Your task to perform on an android device: allow notifications from all sites in the chrome app Image 0: 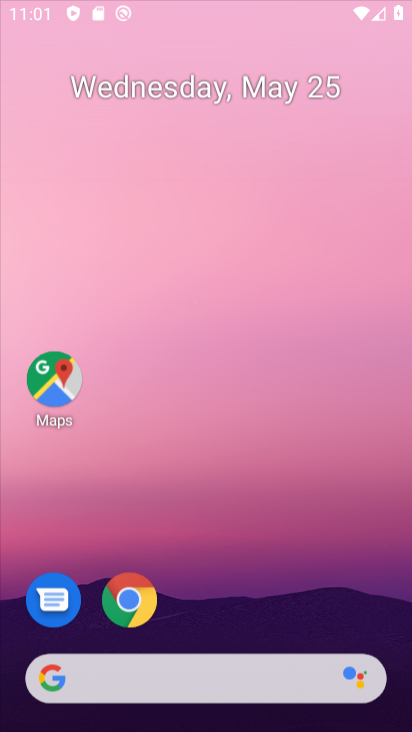
Step 0: click (125, 597)
Your task to perform on an android device: allow notifications from all sites in the chrome app Image 1: 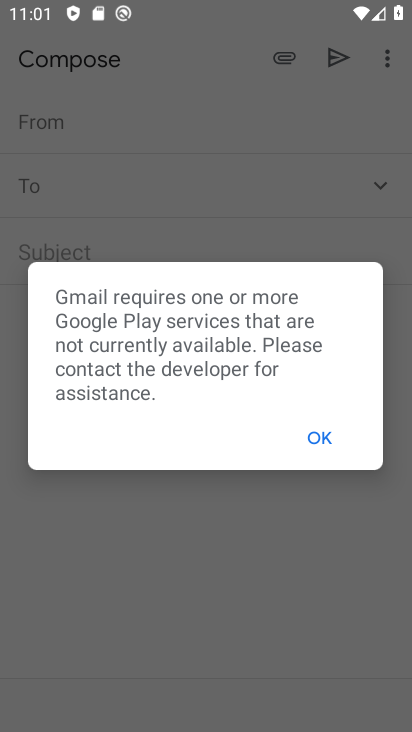
Step 1: click (328, 430)
Your task to perform on an android device: allow notifications from all sites in the chrome app Image 2: 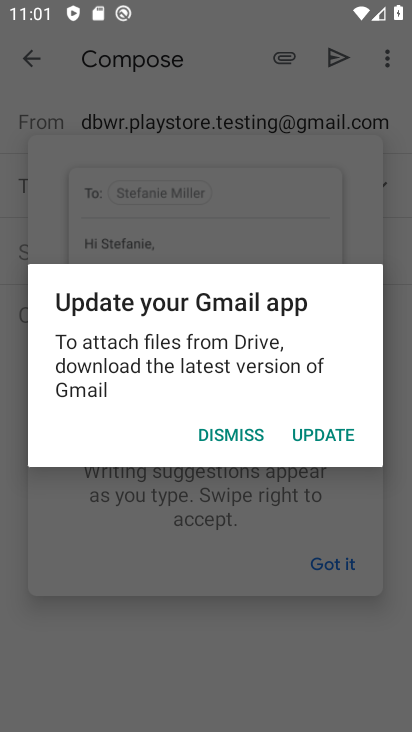
Step 2: press home button
Your task to perform on an android device: allow notifications from all sites in the chrome app Image 3: 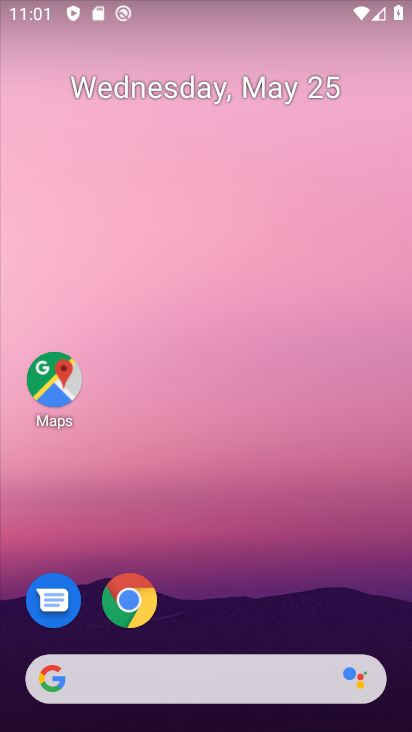
Step 3: drag from (208, 665) to (228, 132)
Your task to perform on an android device: allow notifications from all sites in the chrome app Image 4: 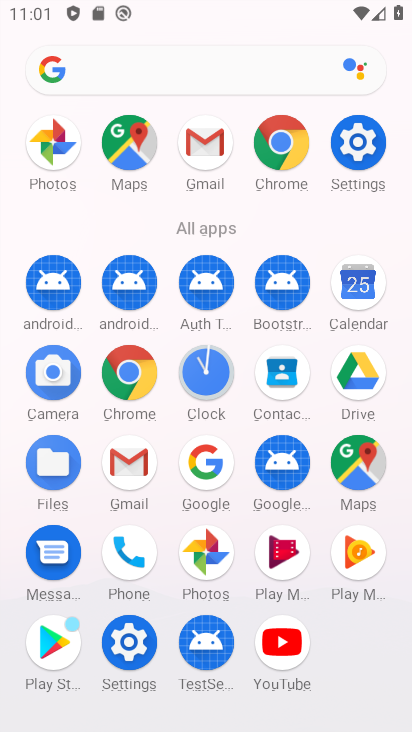
Step 4: click (279, 145)
Your task to perform on an android device: allow notifications from all sites in the chrome app Image 5: 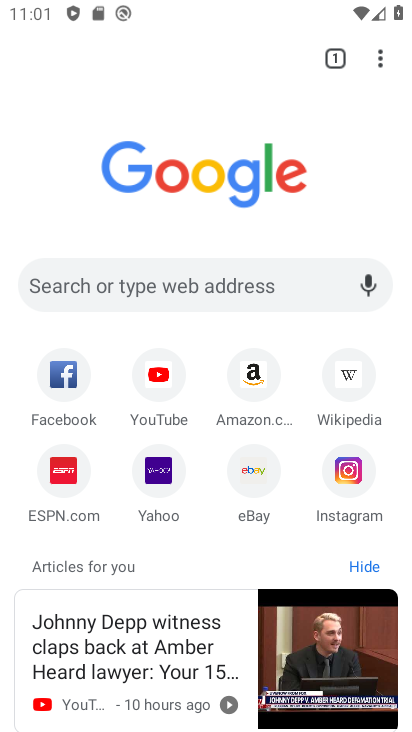
Step 5: click (376, 59)
Your task to perform on an android device: allow notifications from all sites in the chrome app Image 6: 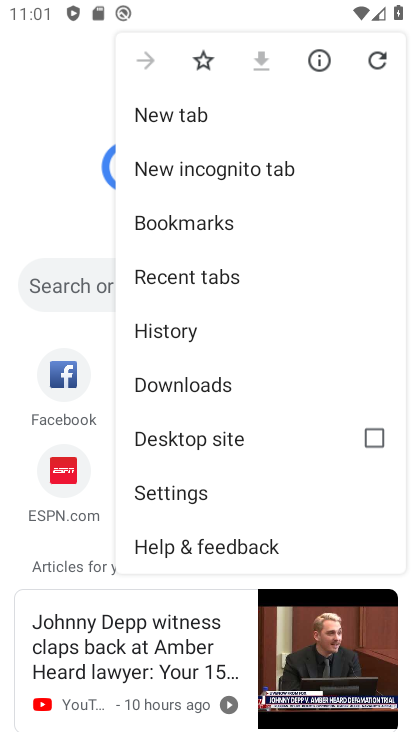
Step 6: click (188, 492)
Your task to perform on an android device: allow notifications from all sites in the chrome app Image 7: 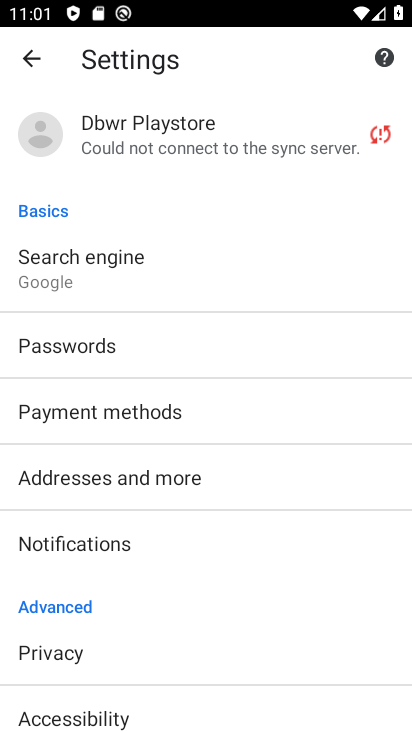
Step 7: drag from (108, 682) to (138, 99)
Your task to perform on an android device: allow notifications from all sites in the chrome app Image 8: 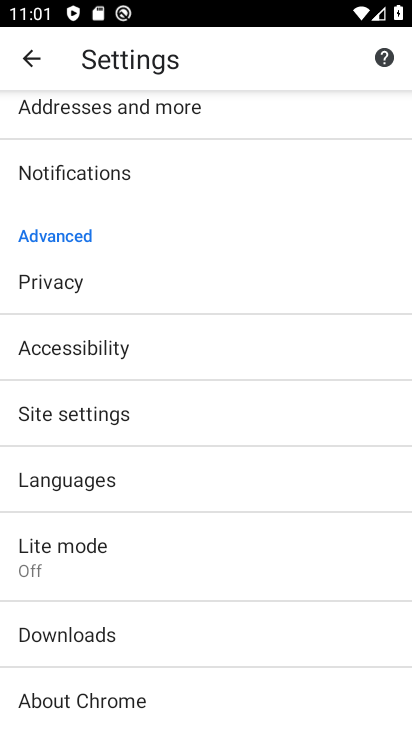
Step 8: click (106, 414)
Your task to perform on an android device: allow notifications from all sites in the chrome app Image 9: 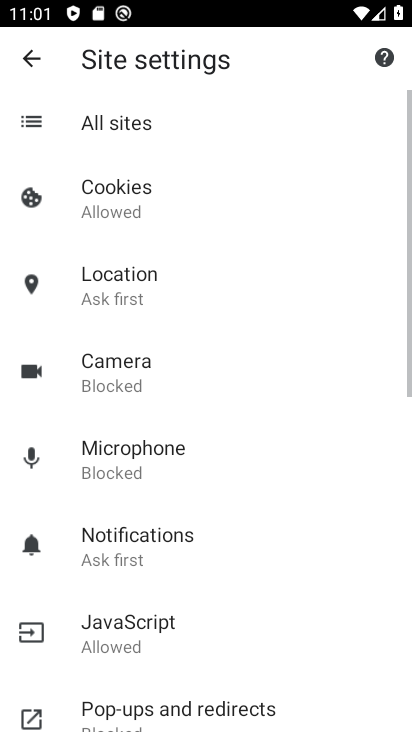
Step 9: click (117, 544)
Your task to perform on an android device: allow notifications from all sites in the chrome app Image 10: 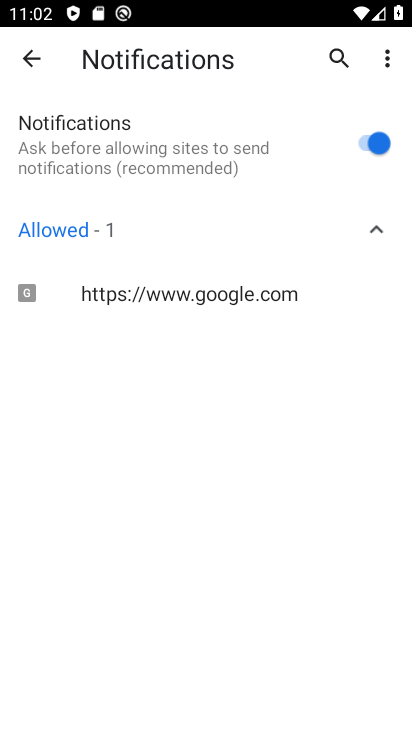
Step 10: task complete